Your task to perform on an android device: open app "Spotify: Music and Podcasts" Image 0: 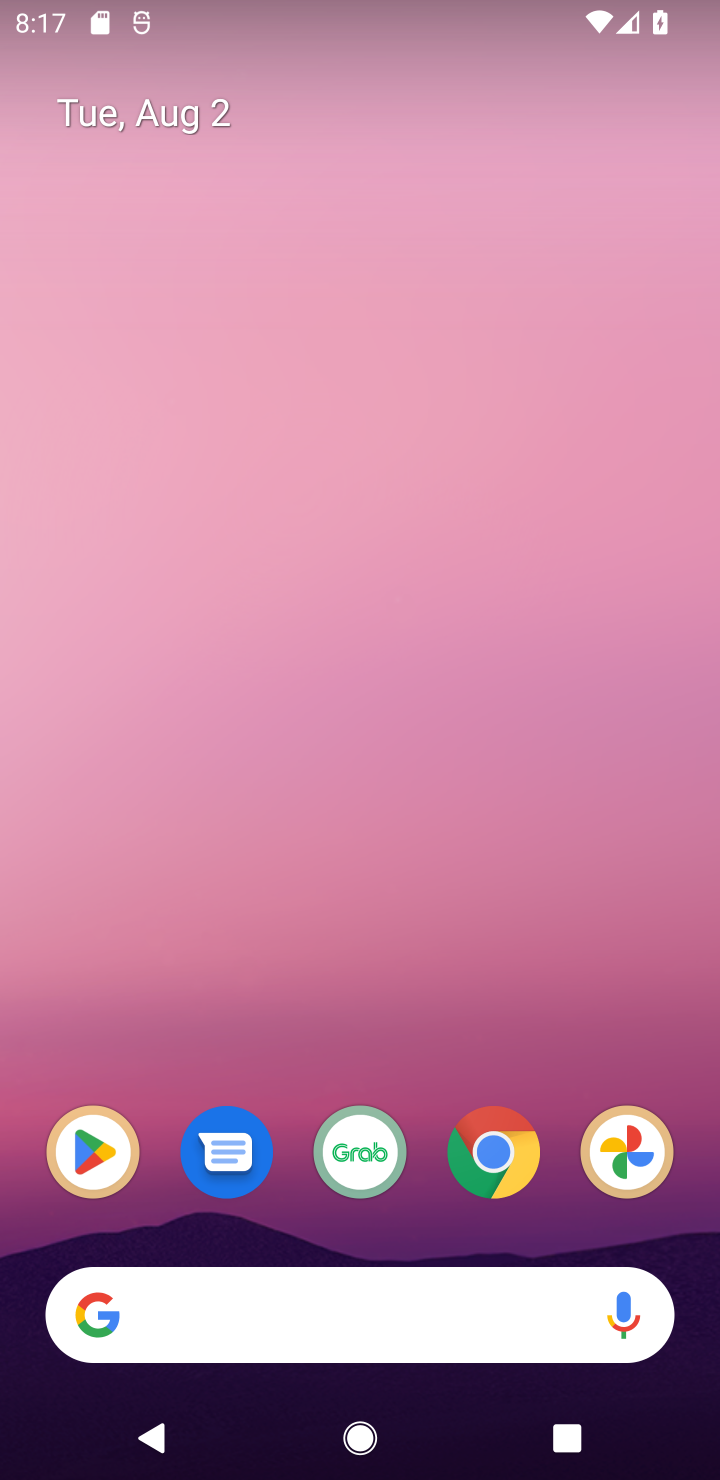
Step 0: click (96, 1146)
Your task to perform on an android device: open app "Spotify: Music and Podcasts" Image 1: 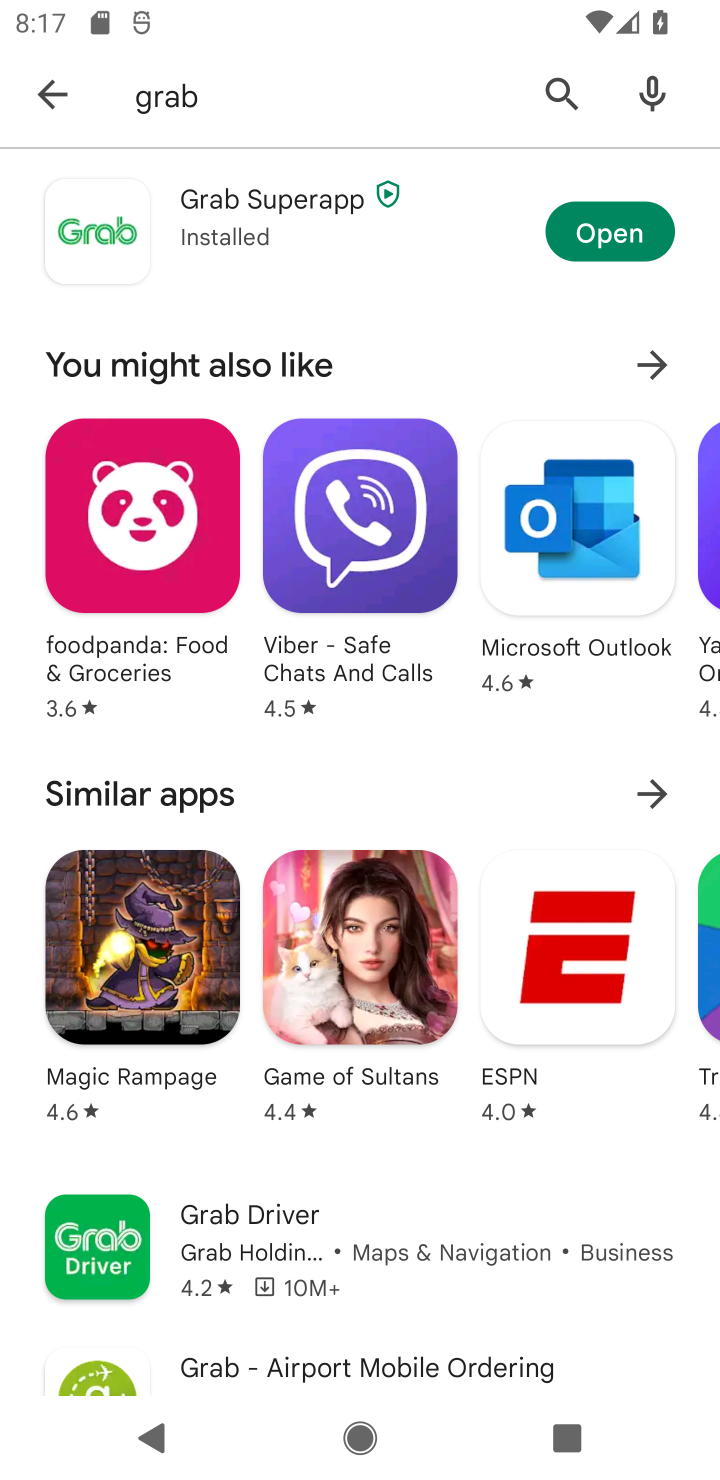
Step 1: click (53, 90)
Your task to perform on an android device: open app "Spotify: Music and Podcasts" Image 2: 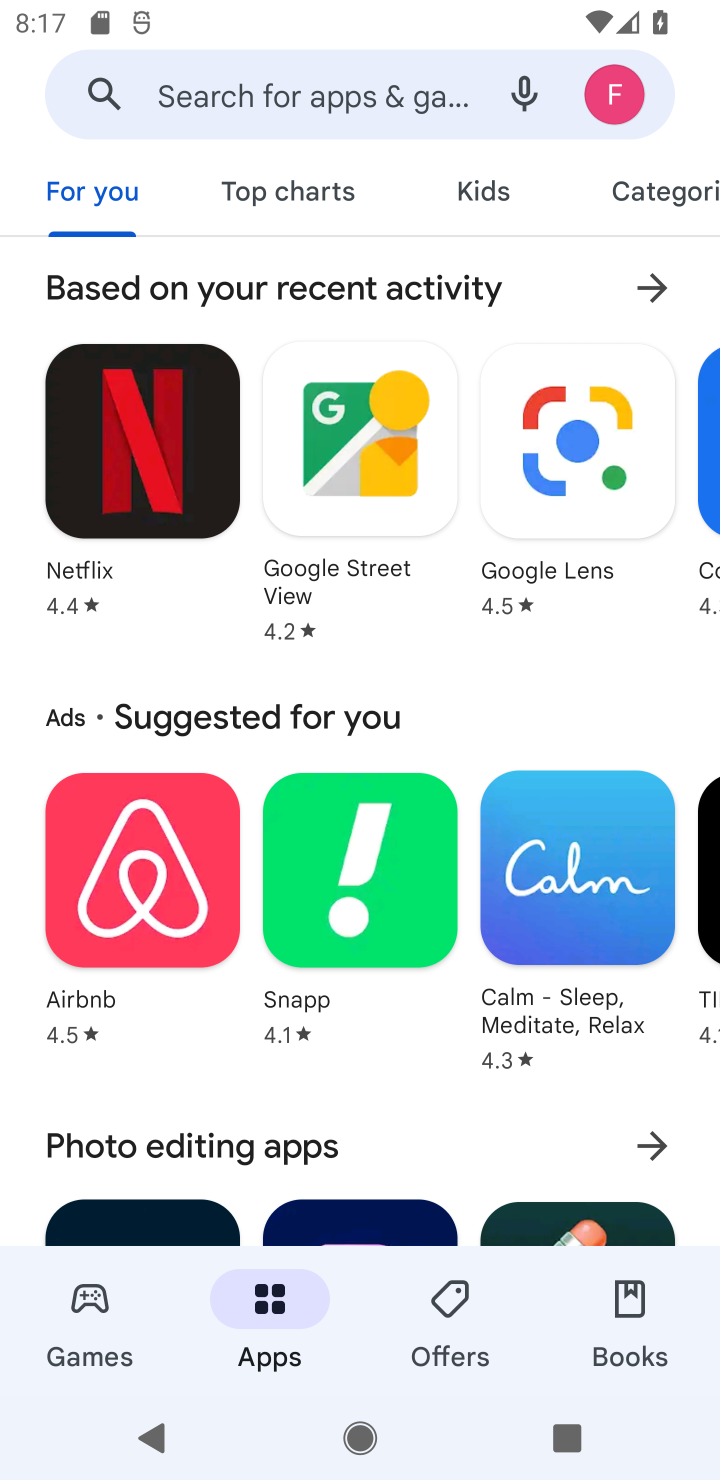
Step 2: click (201, 93)
Your task to perform on an android device: open app "Spotify: Music and Podcasts" Image 3: 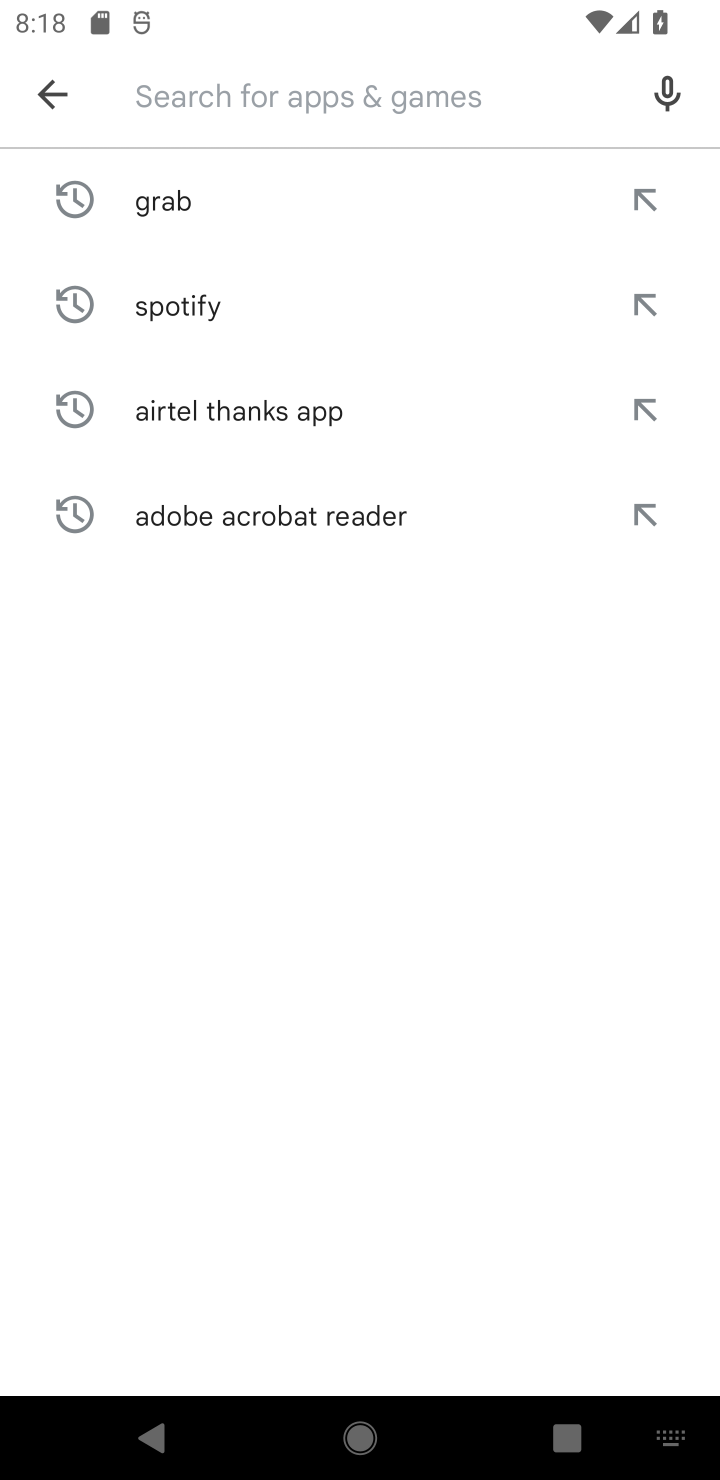
Step 3: type "Spotify"
Your task to perform on an android device: open app "Spotify: Music and Podcasts" Image 4: 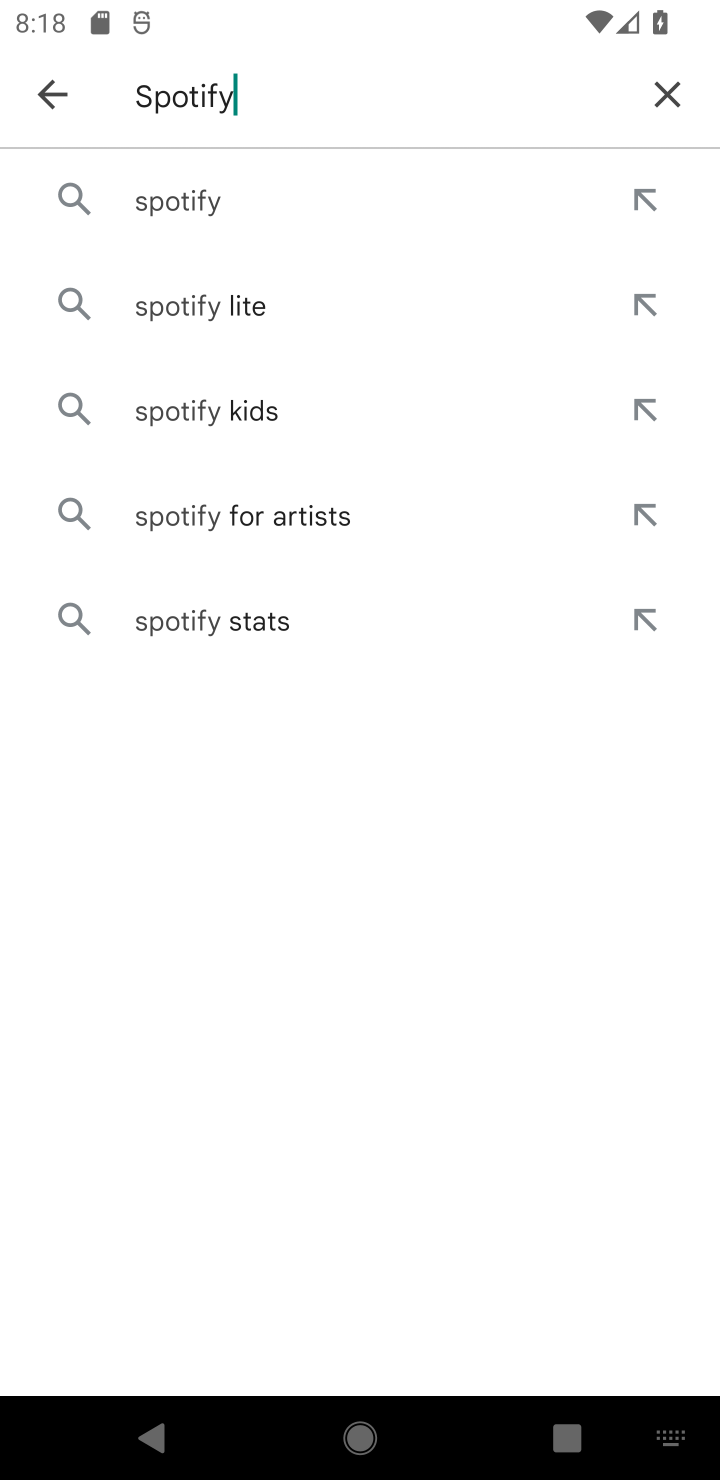
Step 4: click (184, 193)
Your task to perform on an android device: open app "Spotify: Music and Podcasts" Image 5: 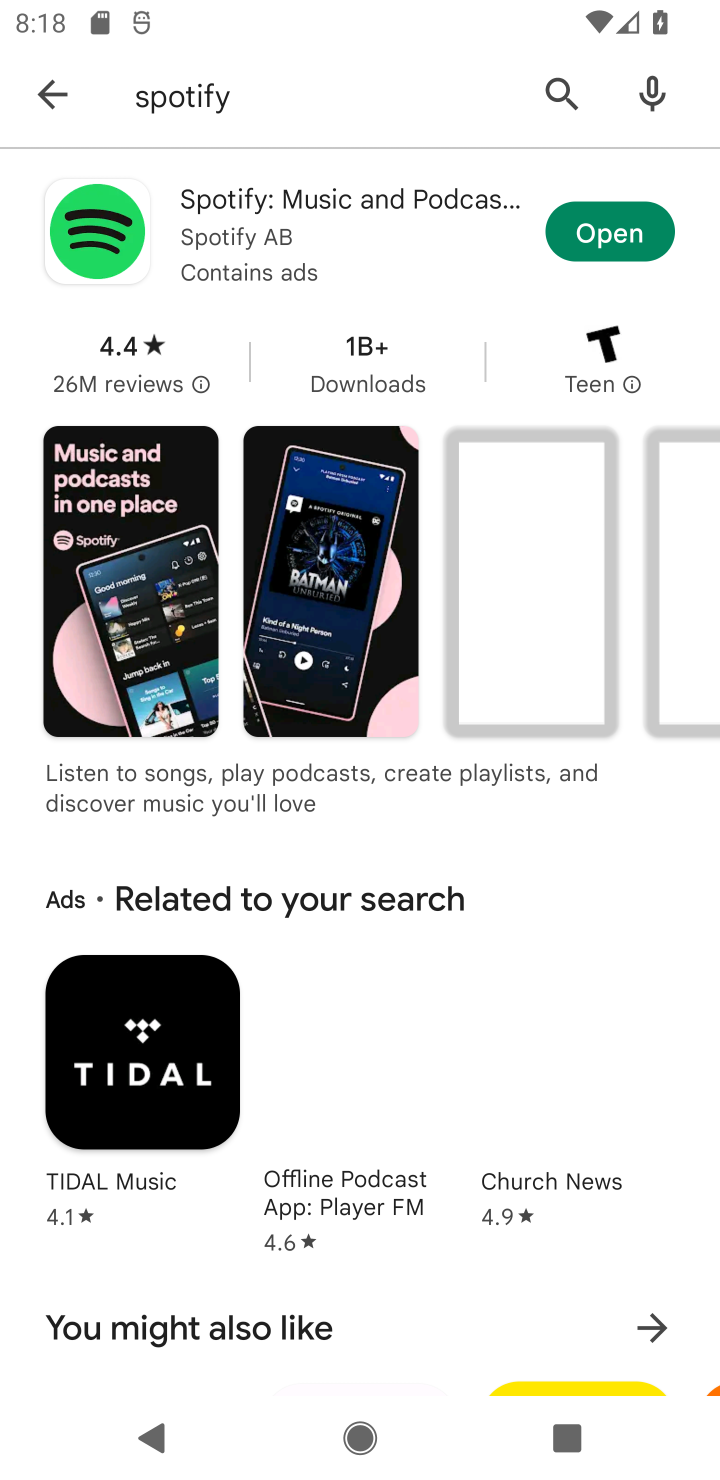
Step 5: click (606, 241)
Your task to perform on an android device: open app "Spotify: Music and Podcasts" Image 6: 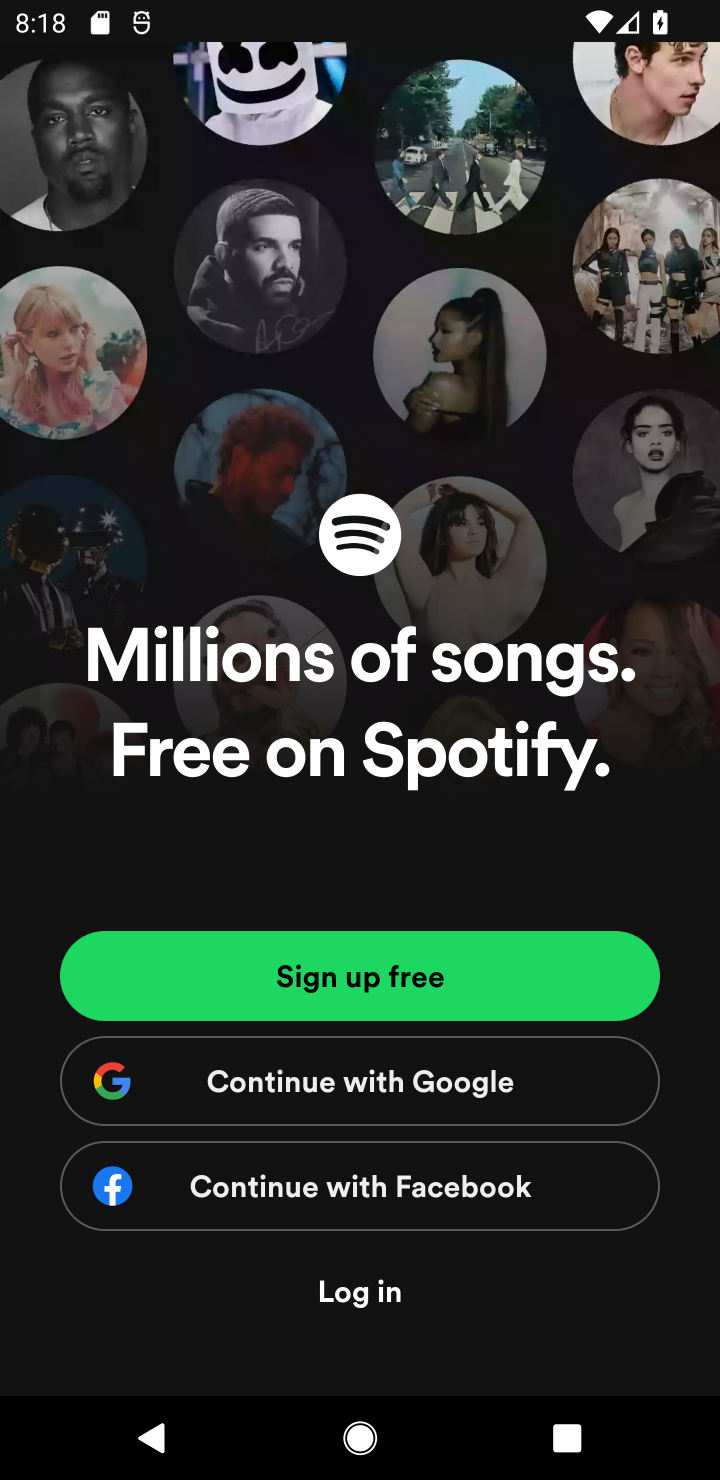
Step 6: task complete